Your task to perform on an android device: open app "Move to iOS" (install if not already installed) Image 0: 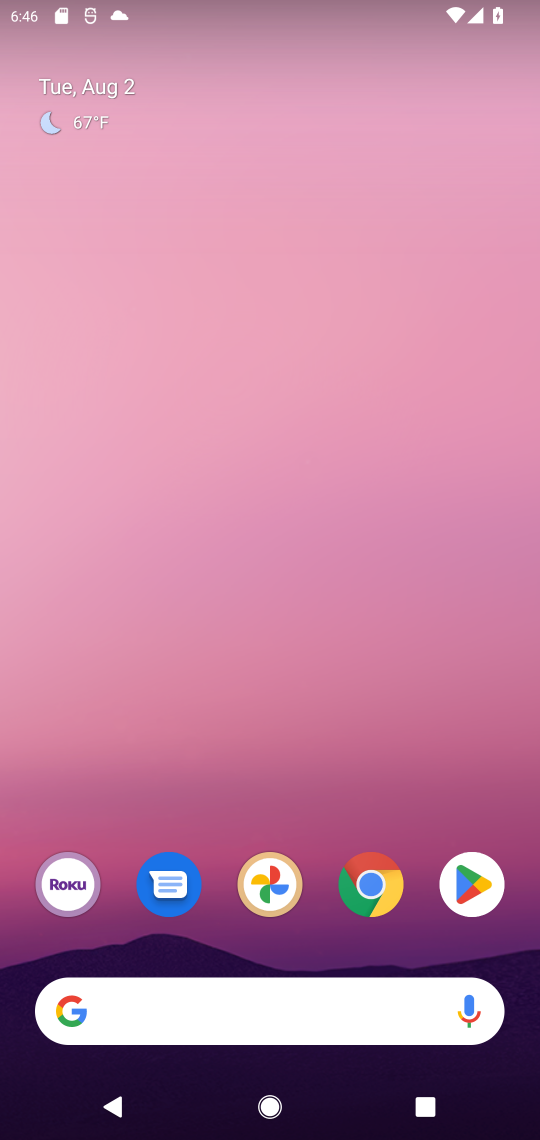
Step 0: press home button
Your task to perform on an android device: open app "Move to iOS" (install if not already installed) Image 1: 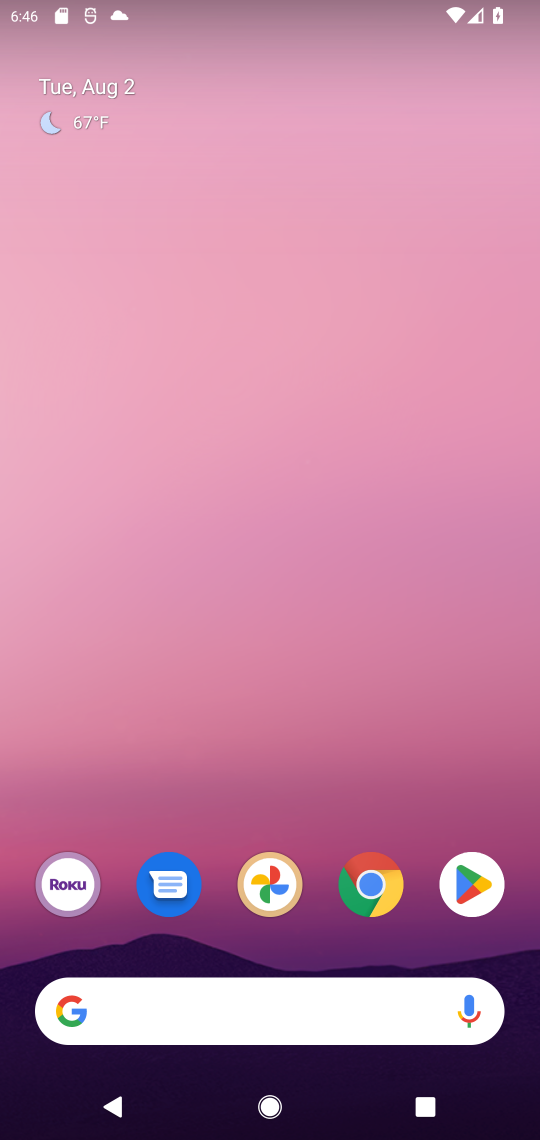
Step 1: click (464, 872)
Your task to perform on an android device: open app "Move to iOS" (install if not already installed) Image 2: 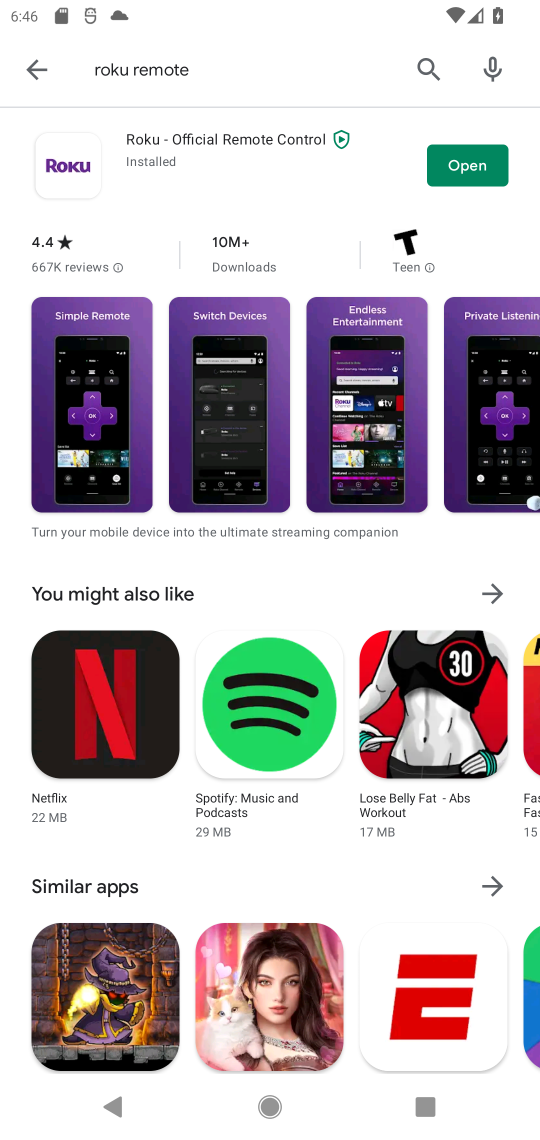
Step 2: click (418, 61)
Your task to perform on an android device: open app "Move to iOS" (install if not already installed) Image 3: 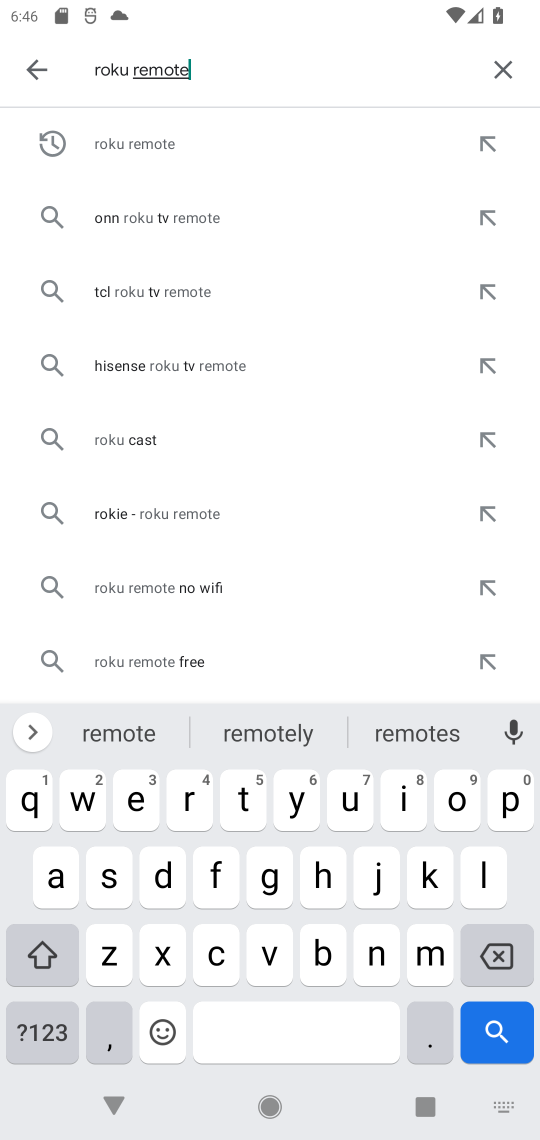
Step 3: click (501, 67)
Your task to perform on an android device: open app "Move to iOS" (install if not already installed) Image 4: 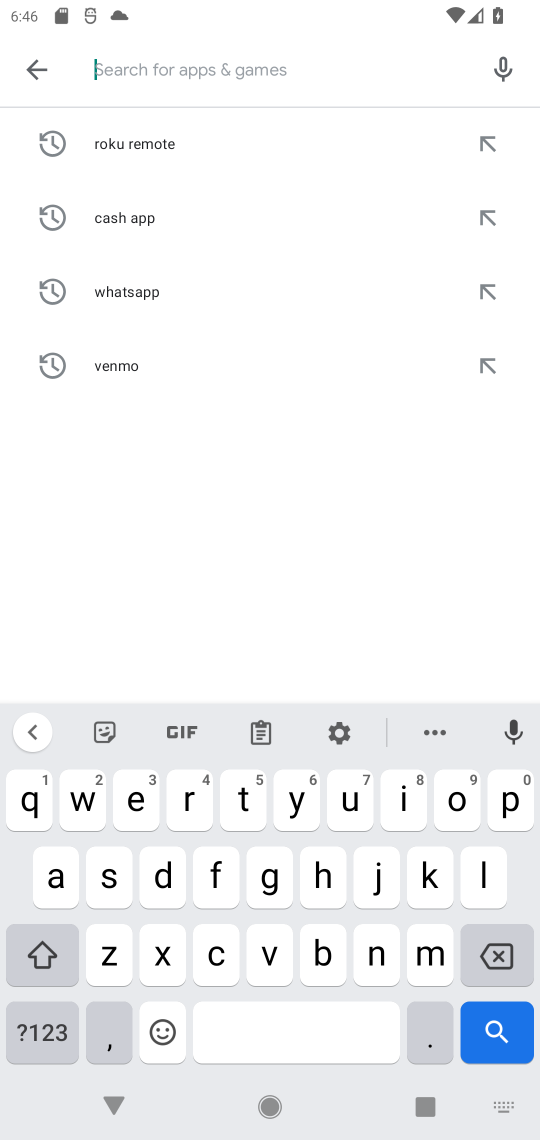
Step 4: click (426, 961)
Your task to perform on an android device: open app "Move to iOS" (install if not already installed) Image 5: 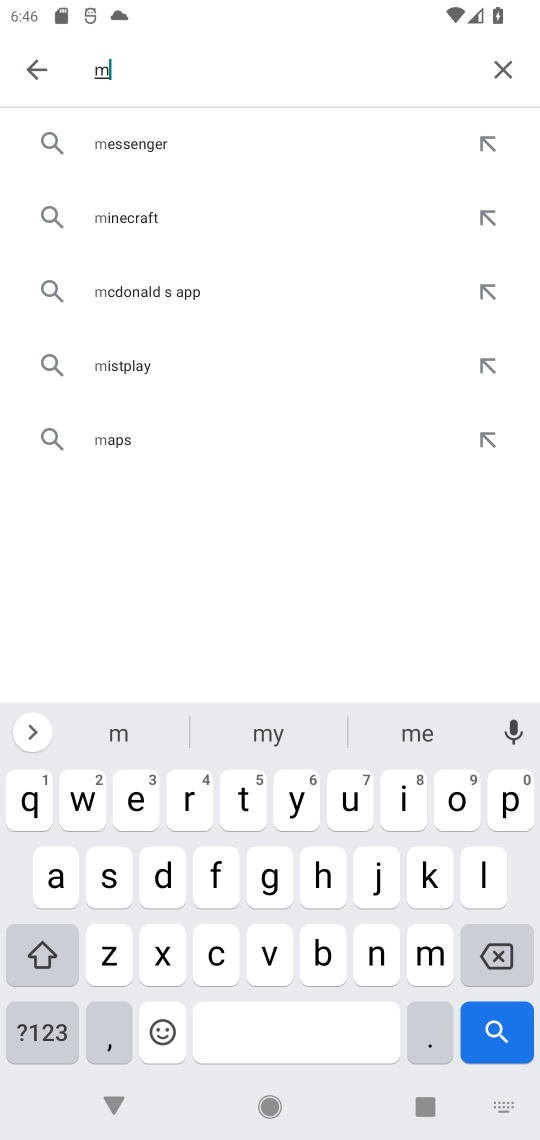
Step 5: click (457, 799)
Your task to perform on an android device: open app "Move to iOS" (install if not already installed) Image 6: 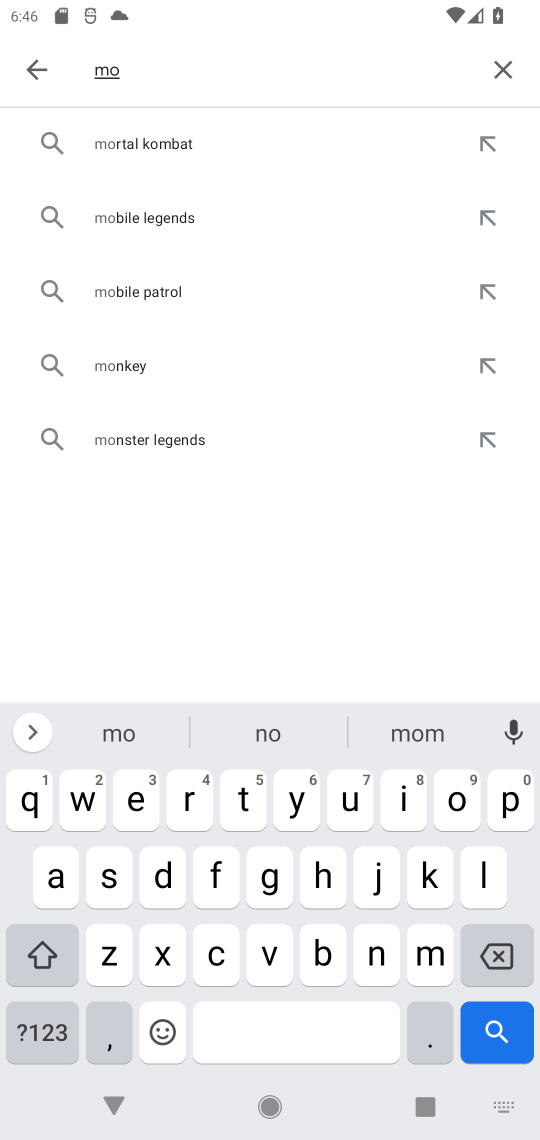
Step 6: click (270, 960)
Your task to perform on an android device: open app "Move to iOS" (install if not already installed) Image 7: 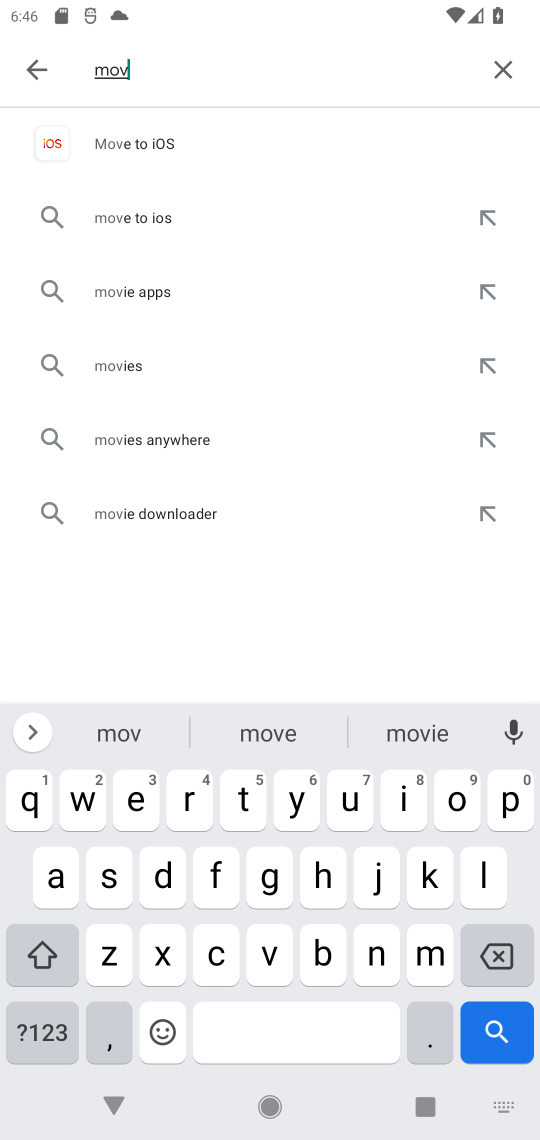
Step 7: click (178, 129)
Your task to perform on an android device: open app "Move to iOS" (install if not already installed) Image 8: 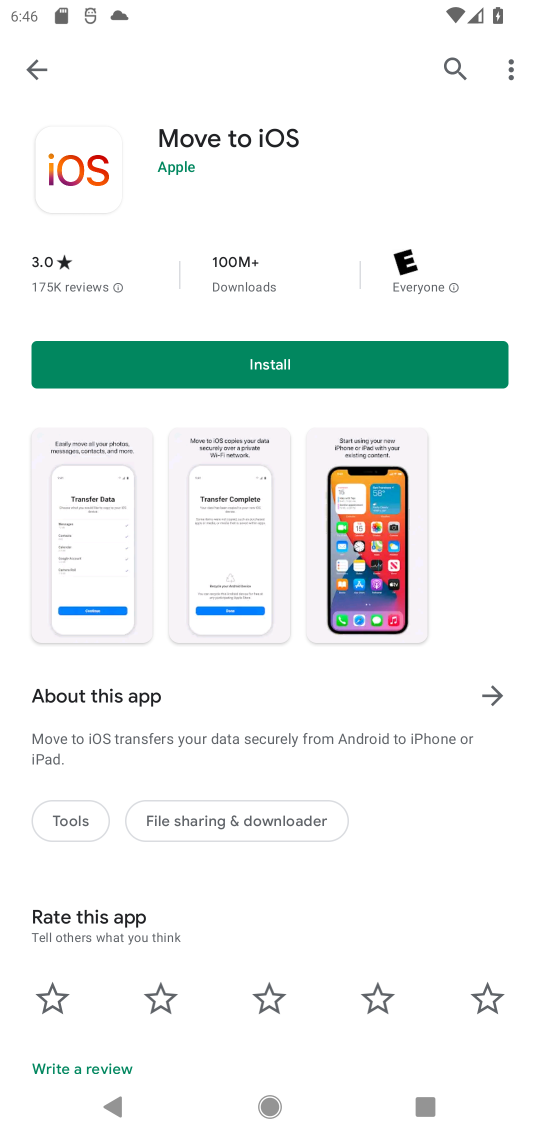
Step 8: click (196, 364)
Your task to perform on an android device: open app "Move to iOS" (install if not already installed) Image 9: 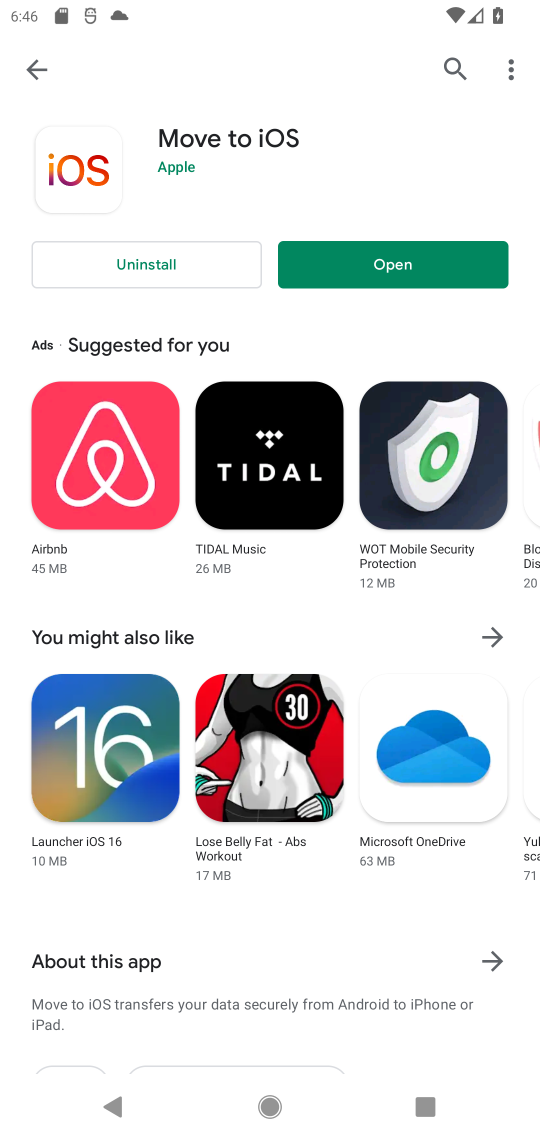
Step 9: click (385, 267)
Your task to perform on an android device: open app "Move to iOS" (install if not already installed) Image 10: 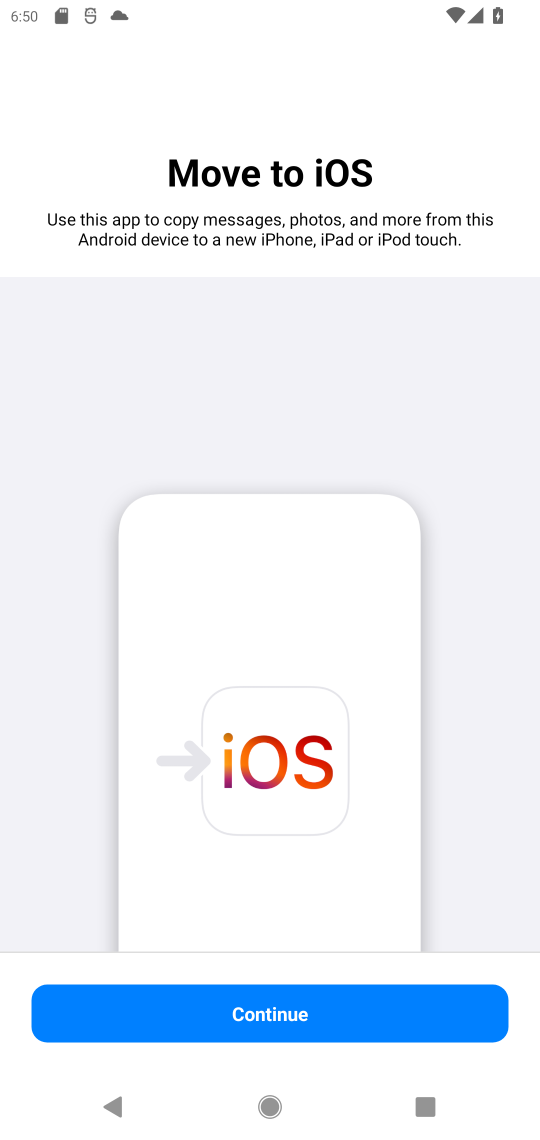
Step 10: task complete